Your task to perform on an android device: turn off location Image 0: 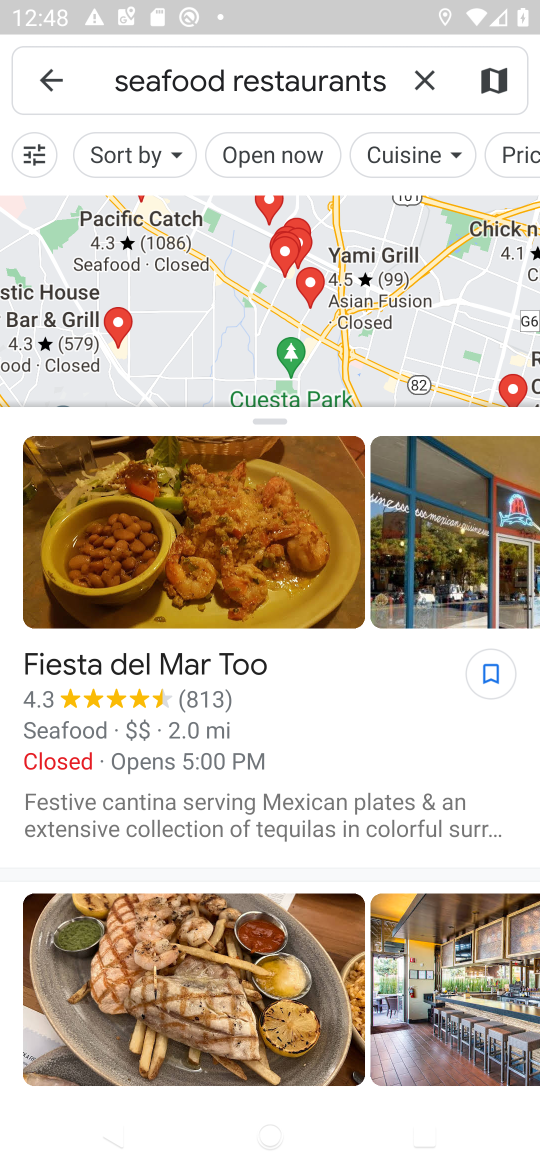
Step 0: press home button
Your task to perform on an android device: turn off location Image 1: 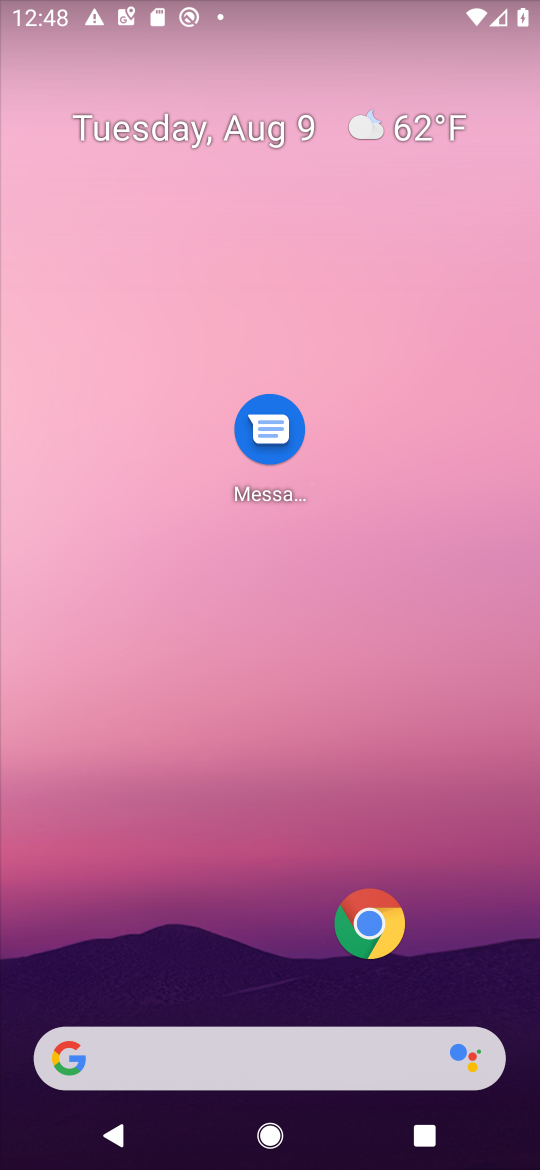
Step 1: task complete